Your task to perform on an android device: see tabs open on other devices in the chrome app Image 0: 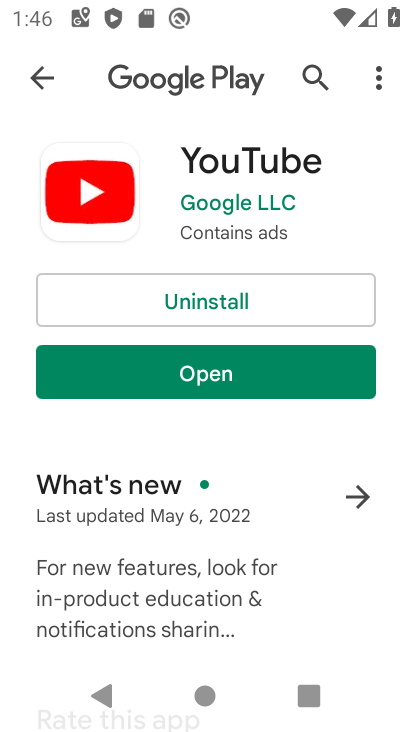
Step 0: press back button
Your task to perform on an android device: see tabs open on other devices in the chrome app Image 1: 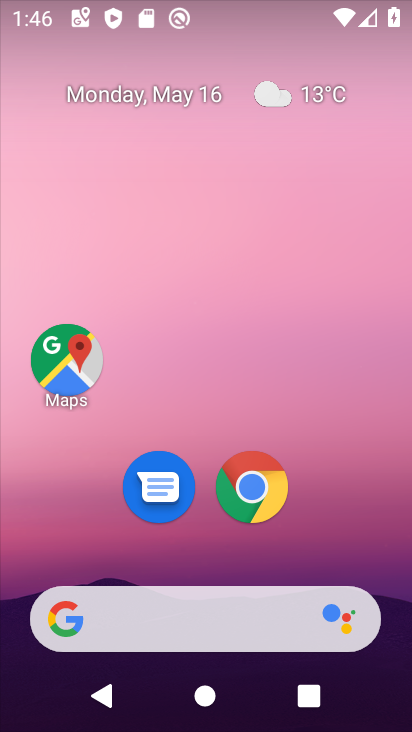
Step 1: click (250, 487)
Your task to perform on an android device: see tabs open on other devices in the chrome app Image 2: 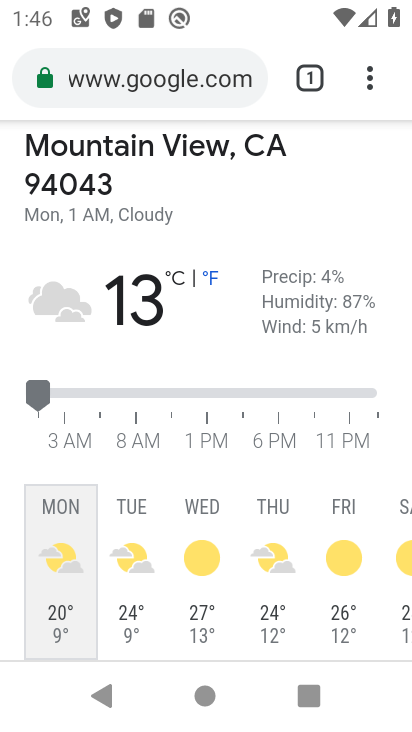
Step 2: task complete